Your task to perform on an android device: Turn off the flashlight Image 0: 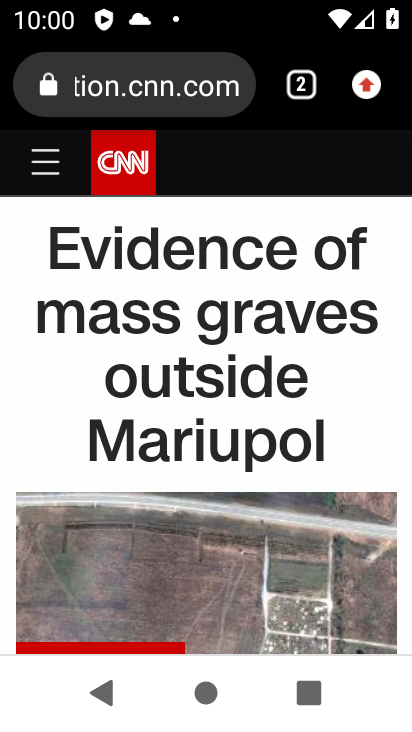
Step 0: drag from (253, 9) to (291, 511)
Your task to perform on an android device: Turn off the flashlight Image 1: 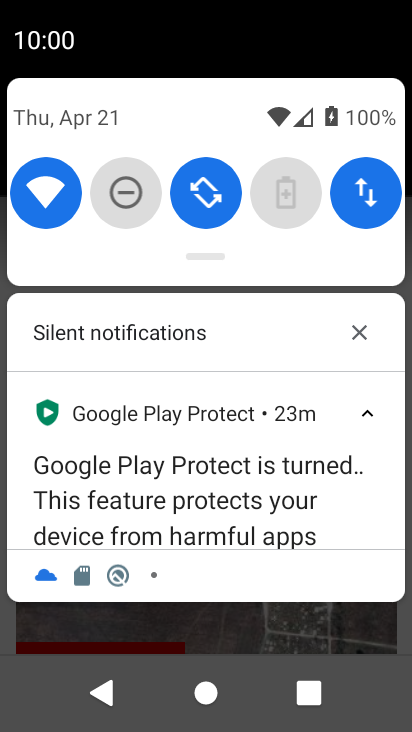
Step 1: task complete